Your task to perform on an android device: Do I have any events today? Image 0: 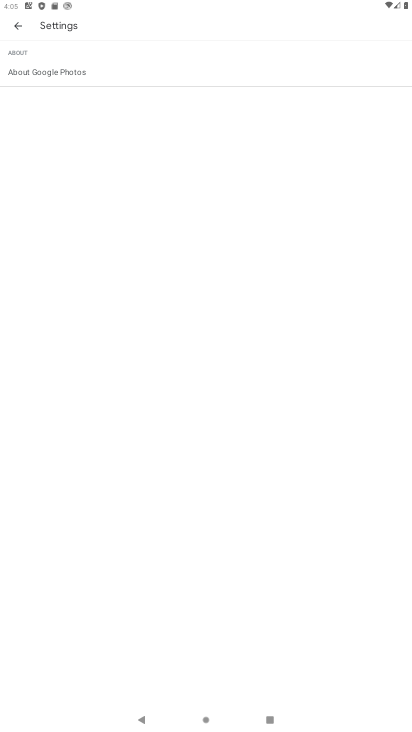
Step 0: press home button
Your task to perform on an android device: Do I have any events today? Image 1: 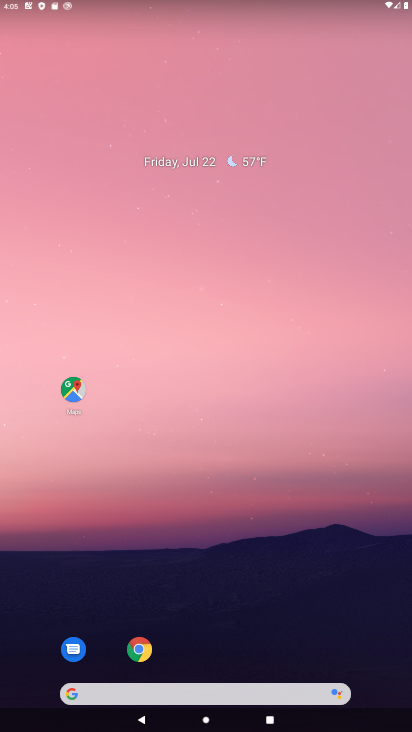
Step 1: drag from (216, 345) to (321, 77)
Your task to perform on an android device: Do I have any events today? Image 2: 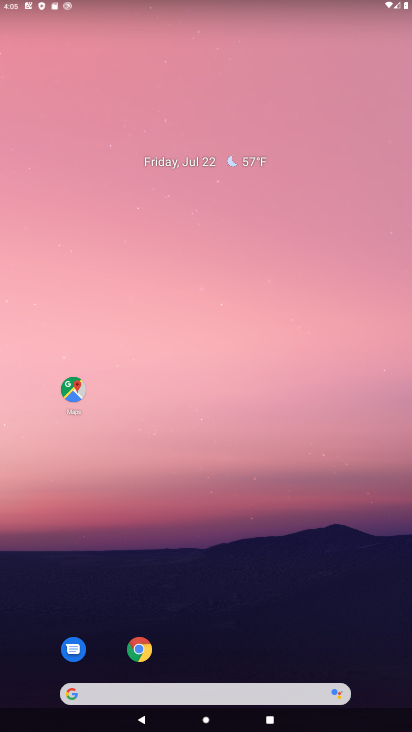
Step 2: drag from (34, 695) to (291, 158)
Your task to perform on an android device: Do I have any events today? Image 3: 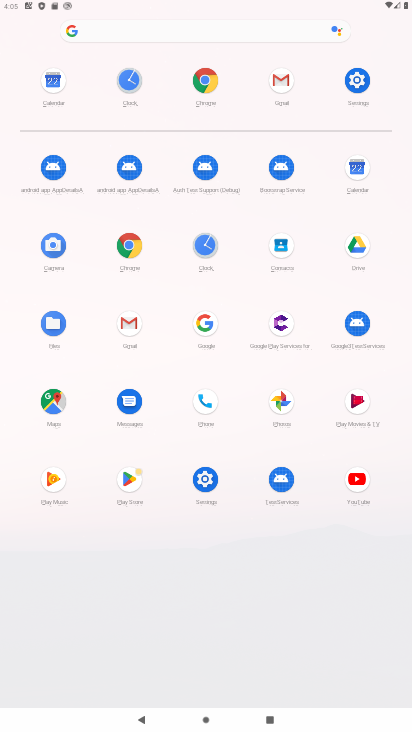
Step 3: click (349, 179)
Your task to perform on an android device: Do I have any events today? Image 4: 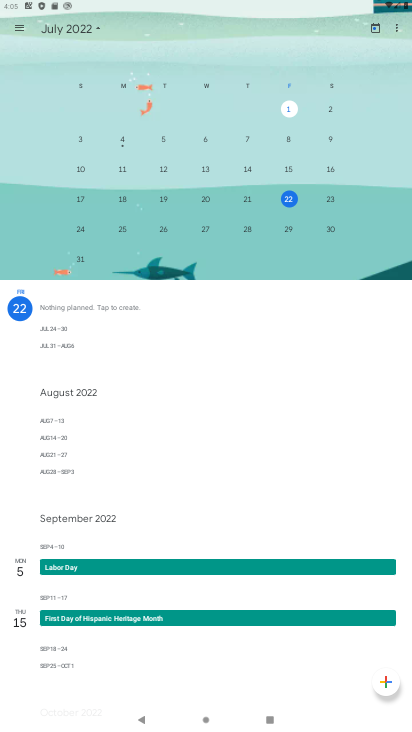
Step 4: task complete